Your task to perform on an android device: Go to location settings Image 0: 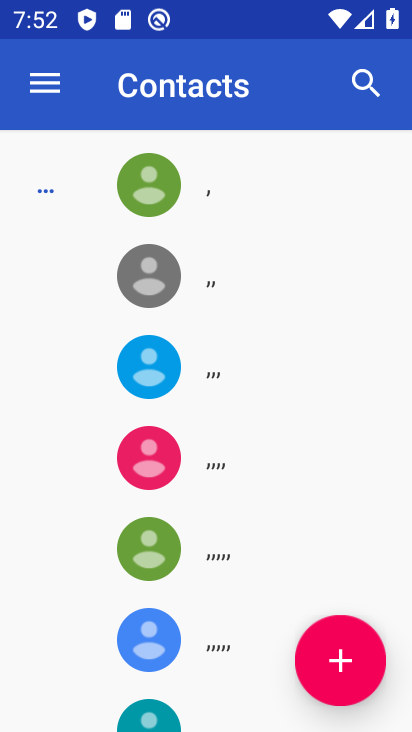
Step 0: press home button
Your task to perform on an android device: Go to location settings Image 1: 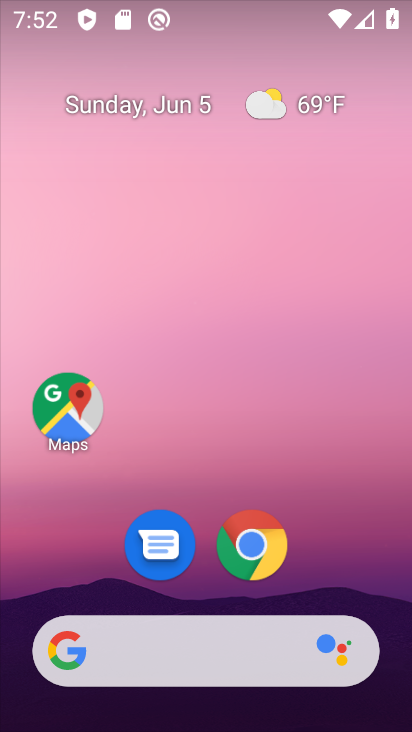
Step 1: drag from (334, 580) to (334, 292)
Your task to perform on an android device: Go to location settings Image 2: 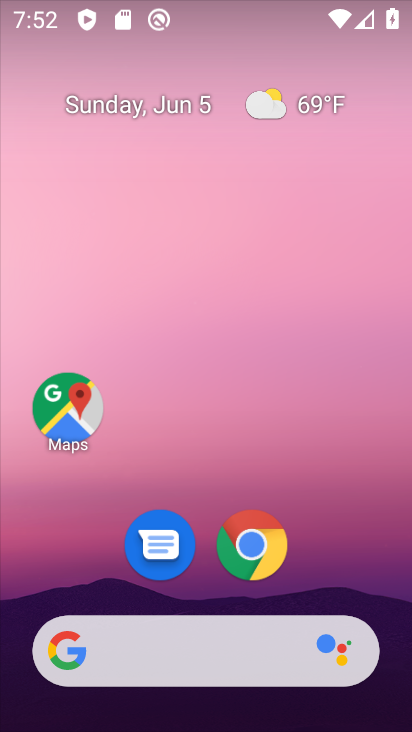
Step 2: drag from (363, 564) to (361, 147)
Your task to perform on an android device: Go to location settings Image 3: 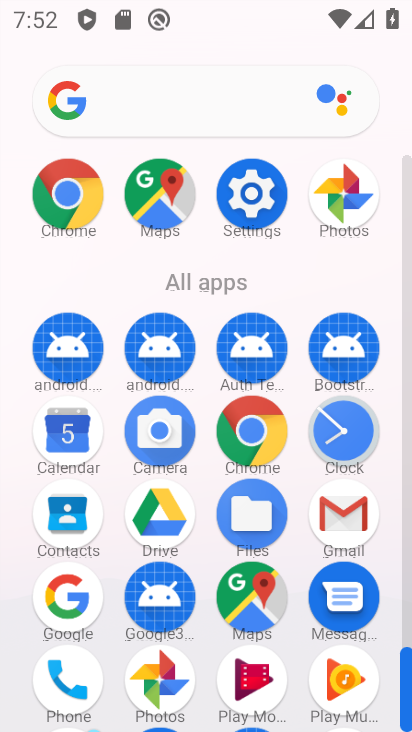
Step 3: click (261, 208)
Your task to perform on an android device: Go to location settings Image 4: 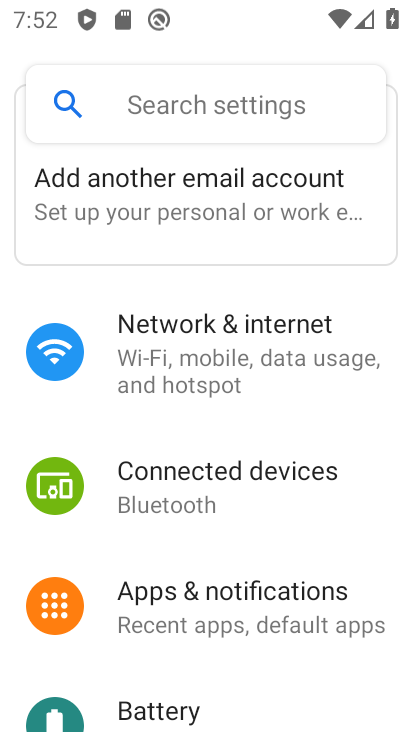
Step 4: drag from (374, 467) to (384, 369)
Your task to perform on an android device: Go to location settings Image 5: 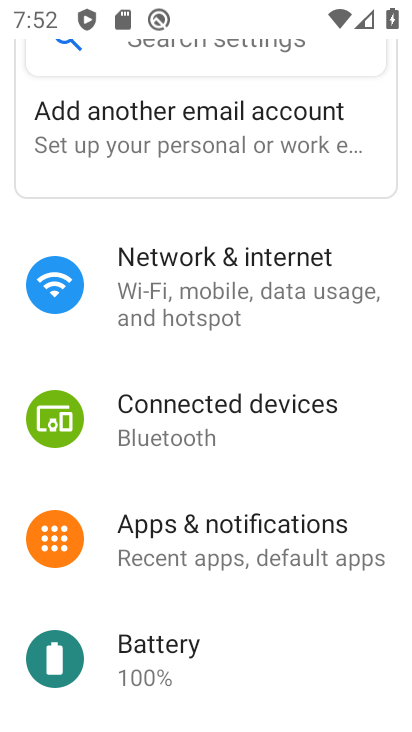
Step 5: drag from (375, 462) to (373, 384)
Your task to perform on an android device: Go to location settings Image 6: 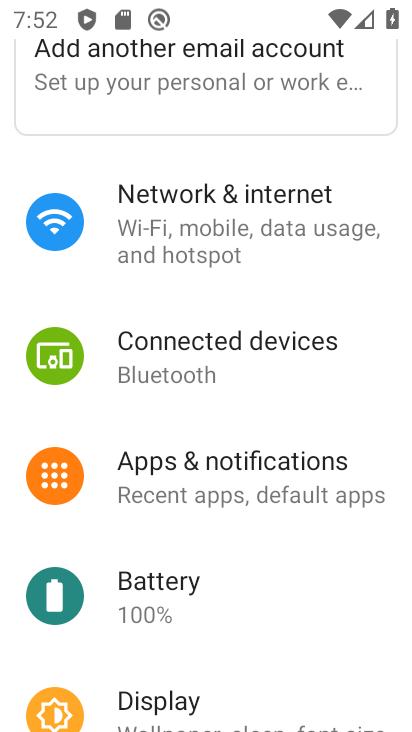
Step 6: drag from (377, 456) to (373, 361)
Your task to perform on an android device: Go to location settings Image 7: 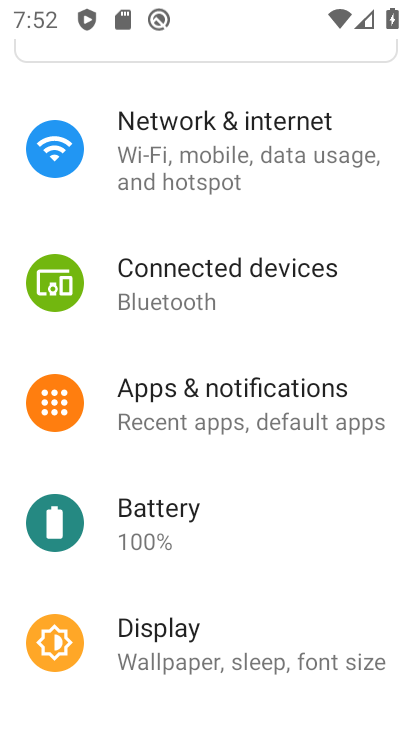
Step 7: drag from (375, 468) to (380, 381)
Your task to perform on an android device: Go to location settings Image 8: 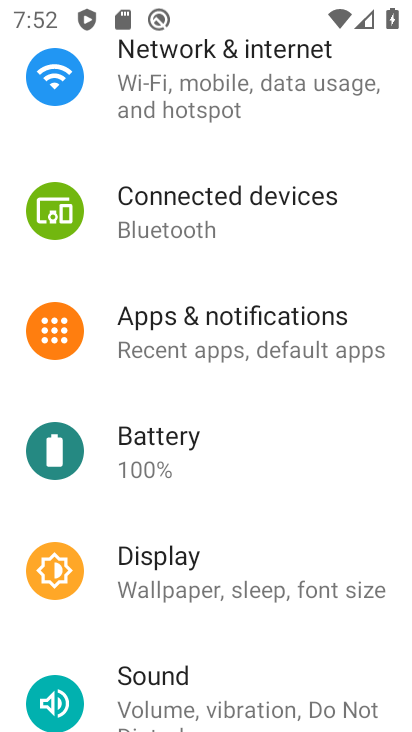
Step 8: drag from (380, 473) to (375, 372)
Your task to perform on an android device: Go to location settings Image 9: 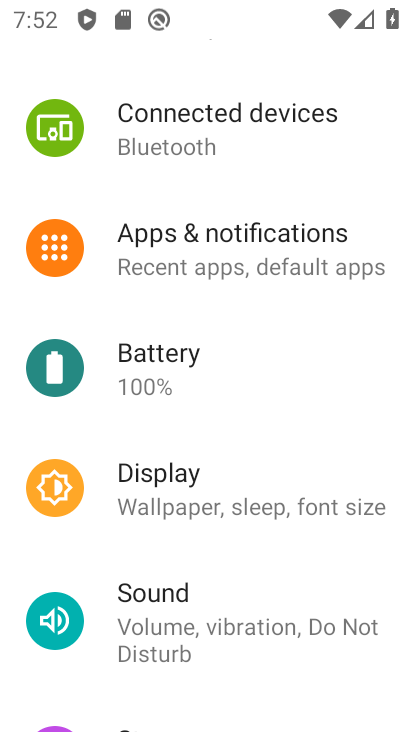
Step 9: drag from (373, 469) to (369, 370)
Your task to perform on an android device: Go to location settings Image 10: 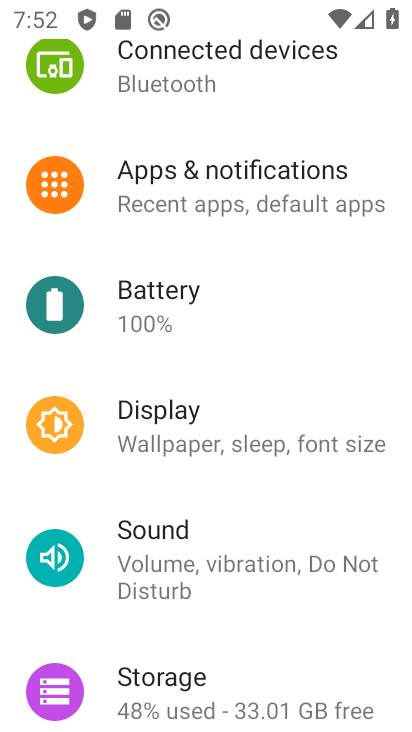
Step 10: drag from (383, 498) to (378, 382)
Your task to perform on an android device: Go to location settings Image 11: 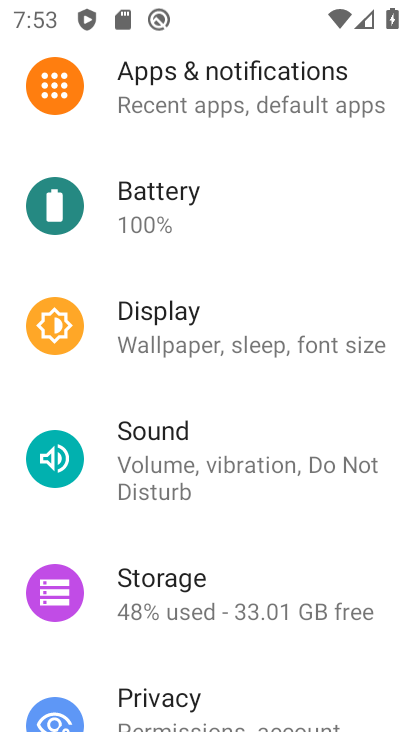
Step 11: drag from (381, 508) to (370, 380)
Your task to perform on an android device: Go to location settings Image 12: 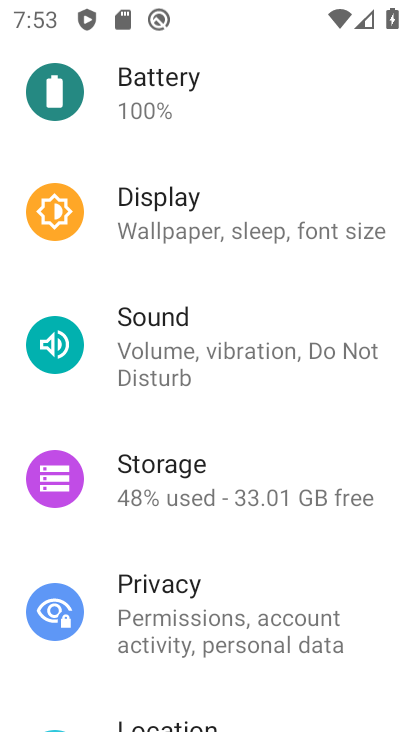
Step 12: drag from (369, 538) to (365, 414)
Your task to perform on an android device: Go to location settings Image 13: 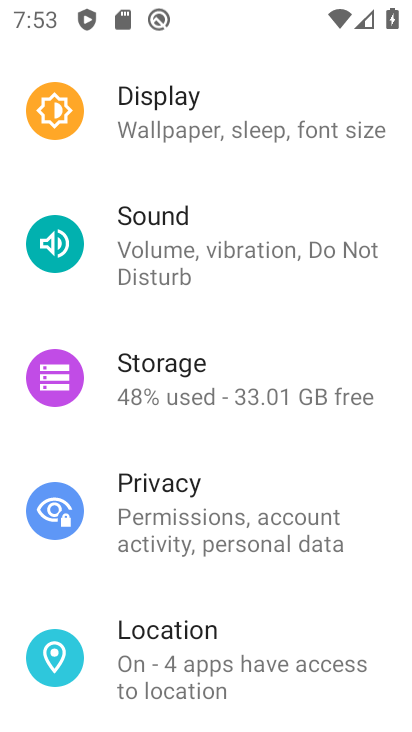
Step 13: drag from (368, 544) to (376, 351)
Your task to perform on an android device: Go to location settings Image 14: 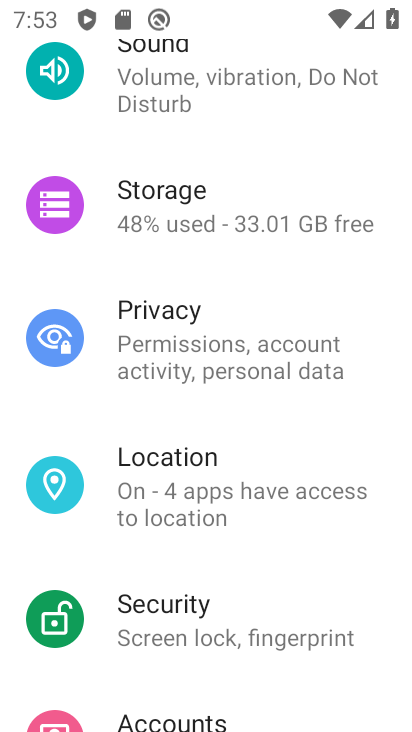
Step 14: drag from (382, 532) to (383, 342)
Your task to perform on an android device: Go to location settings Image 15: 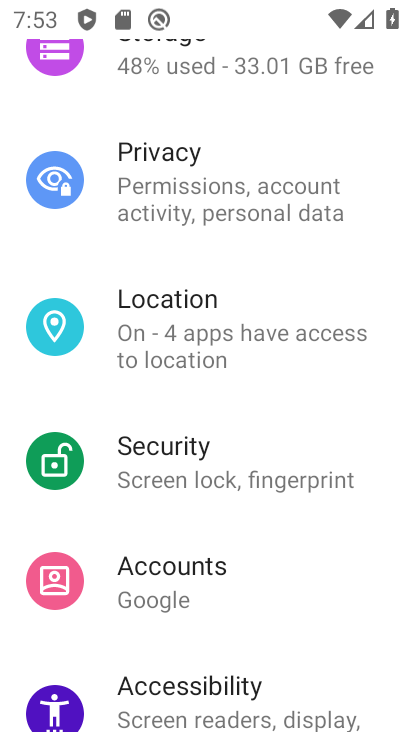
Step 15: click (270, 330)
Your task to perform on an android device: Go to location settings Image 16: 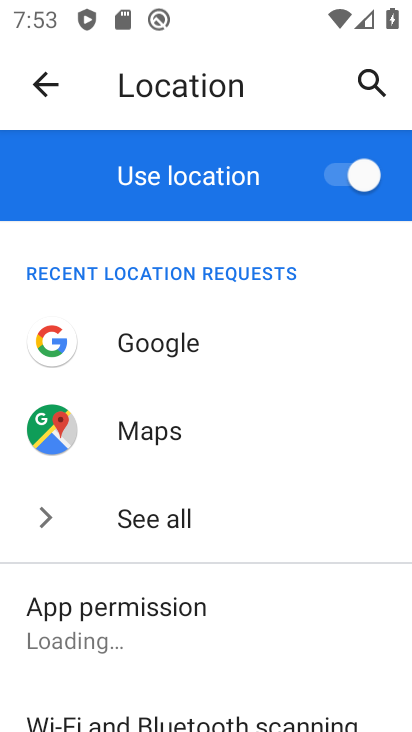
Step 16: task complete